Your task to perform on an android device: Open battery settings Image 0: 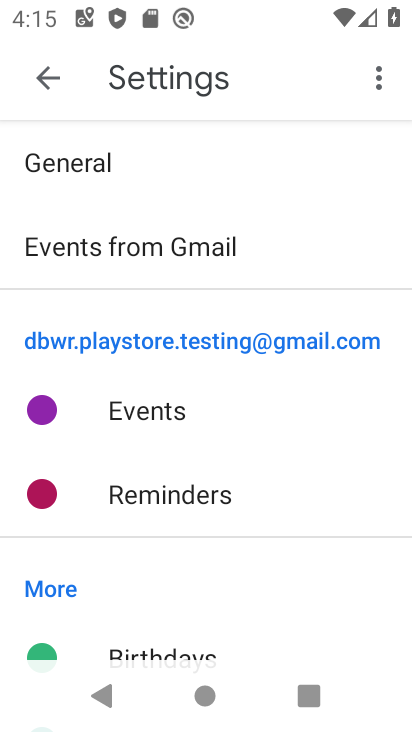
Step 0: press home button
Your task to perform on an android device: Open battery settings Image 1: 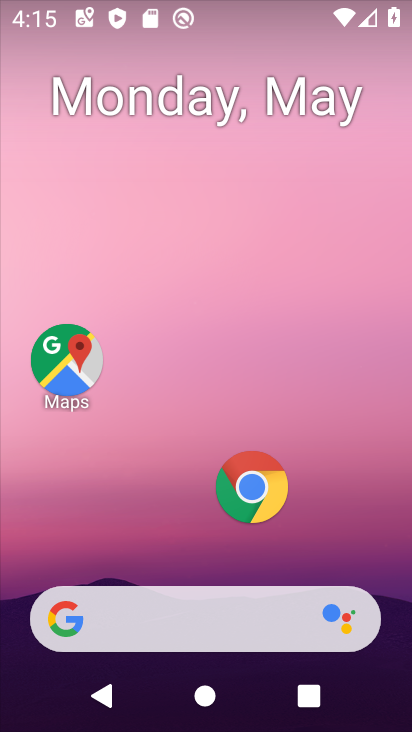
Step 1: drag from (186, 443) to (201, 23)
Your task to perform on an android device: Open battery settings Image 2: 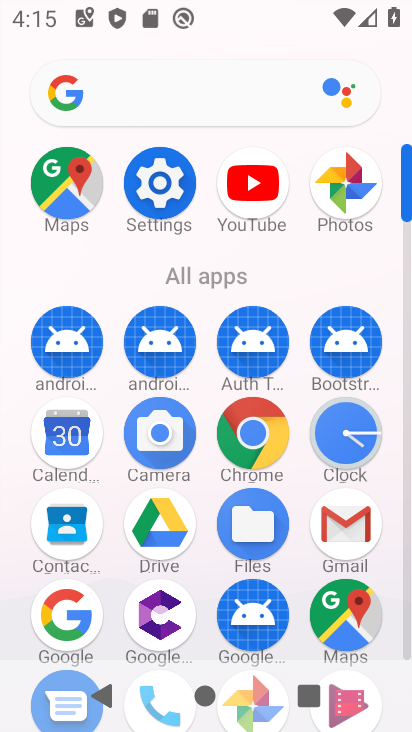
Step 2: click (152, 185)
Your task to perform on an android device: Open battery settings Image 3: 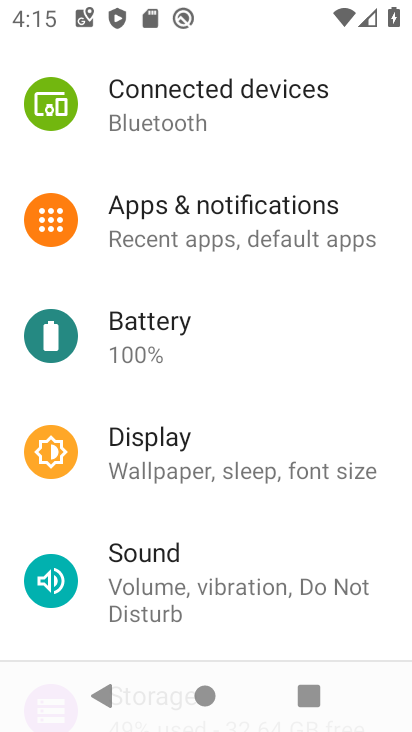
Step 3: click (192, 340)
Your task to perform on an android device: Open battery settings Image 4: 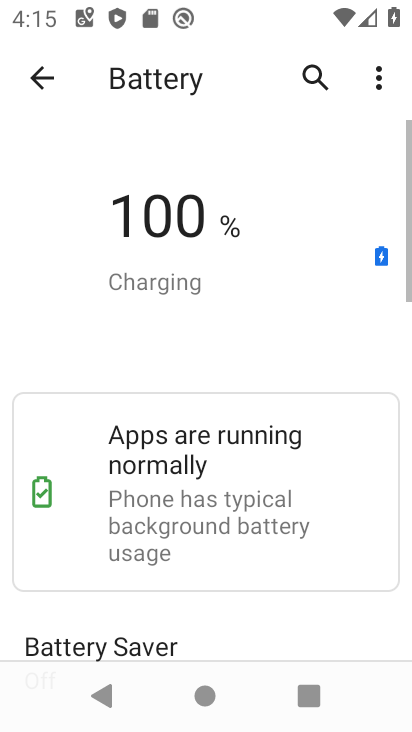
Step 4: task complete